Your task to perform on an android device: turn on data saver in the chrome app Image 0: 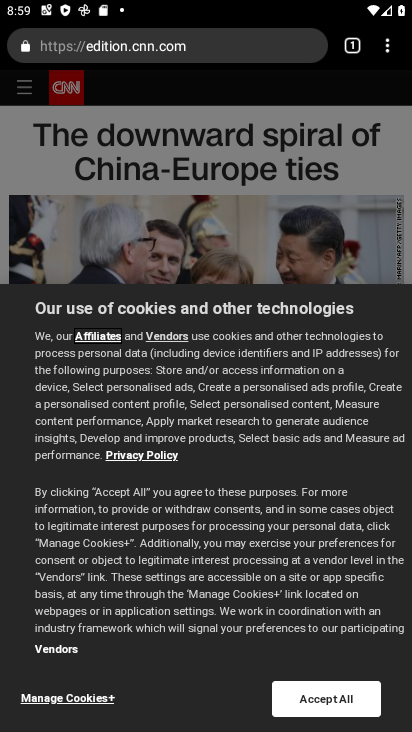
Step 0: press home button
Your task to perform on an android device: turn on data saver in the chrome app Image 1: 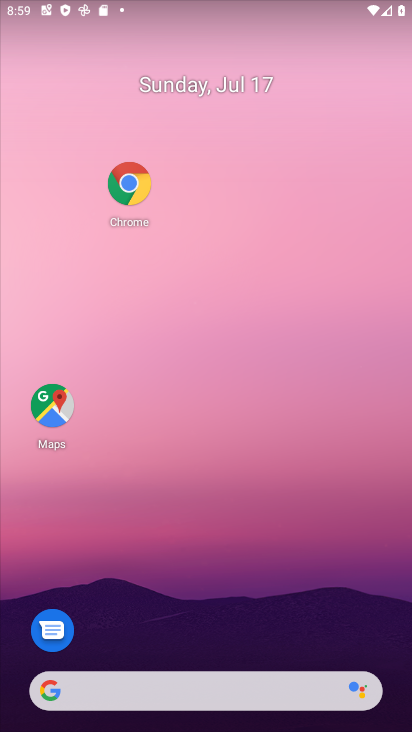
Step 1: click (92, 203)
Your task to perform on an android device: turn on data saver in the chrome app Image 2: 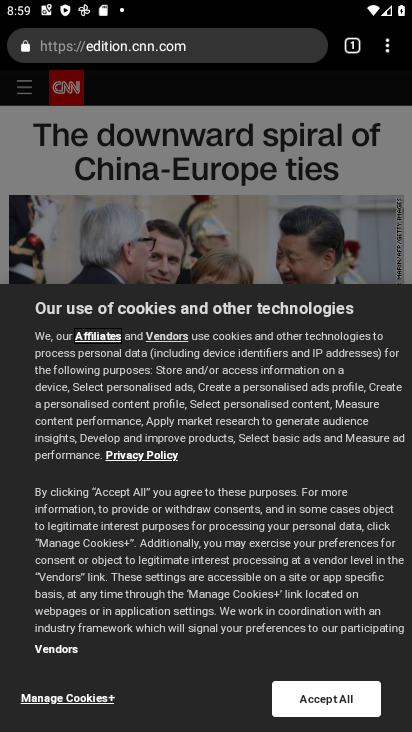
Step 2: click (384, 43)
Your task to perform on an android device: turn on data saver in the chrome app Image 3: 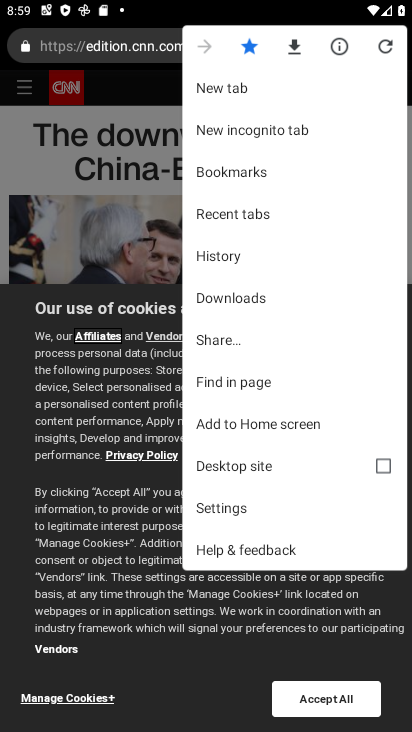
Step 3: click (235, 510)
Your task to perform on an android device: turn on data saver in the chrome app Image 4: 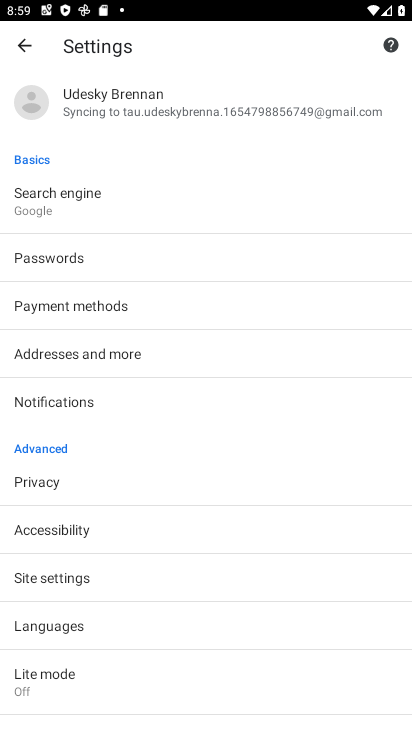
Step 4: click (99, 676)
Your task to perform on an android device: turn on data saver in the chrome app Image 5: 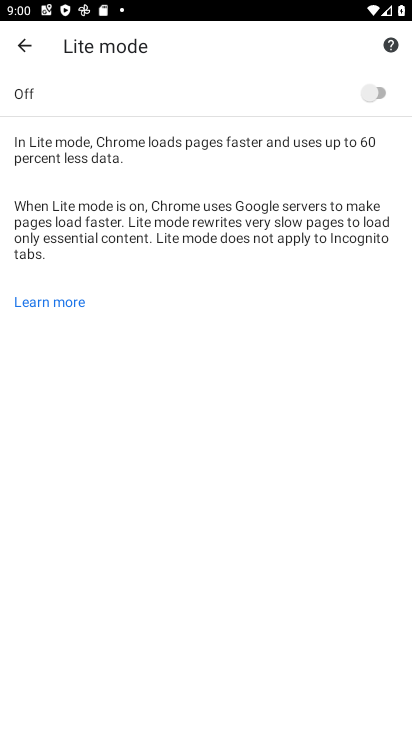
Step 5: click (377, 95)
Your task to perform on an android device: turn on data saver in the chrome app Image 6: 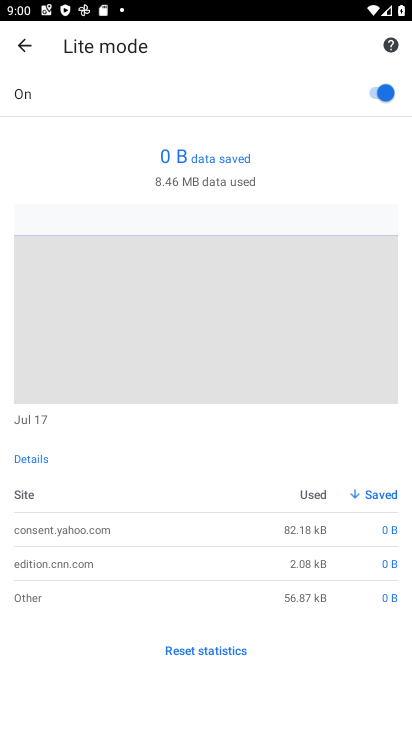
Step 6: task complete